Your task to perform on an android device: turn off location Image 0: 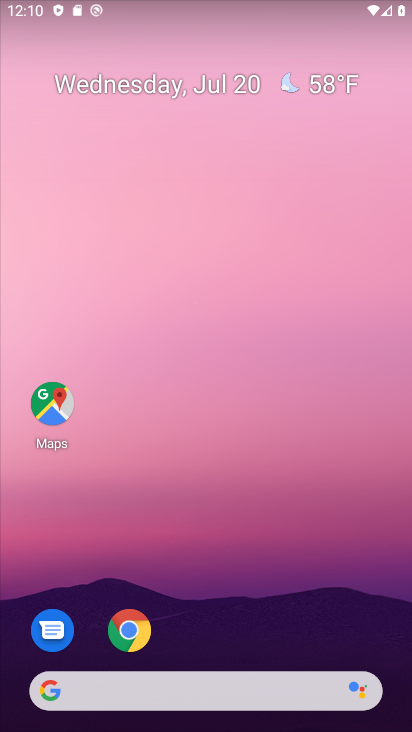
Step 0: press home button
Your task to perform on an android device: turn off location Image 1: 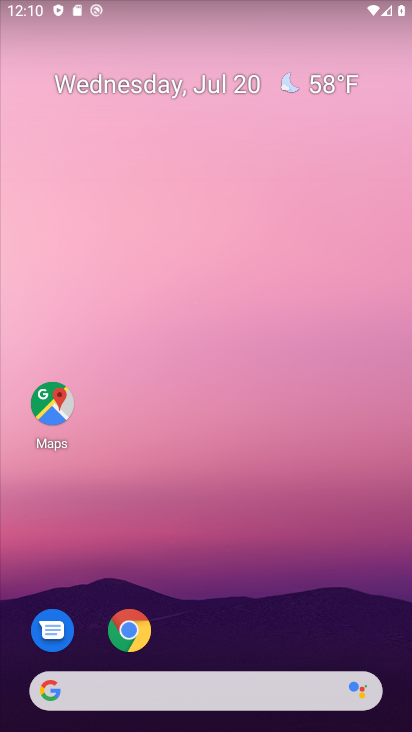
Step 1: drag from (170, 679) to (304, 143)
Your task to perform on an android device: turn off location Image 2: 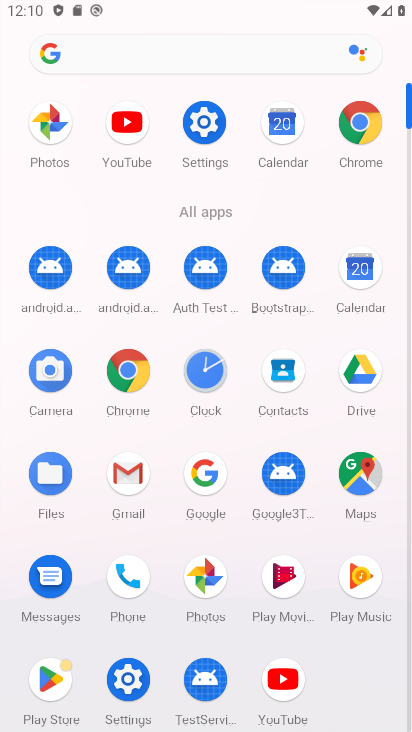
Step 2: click (207, 130)
Your task to perform on an android device: turn off location Image 3: 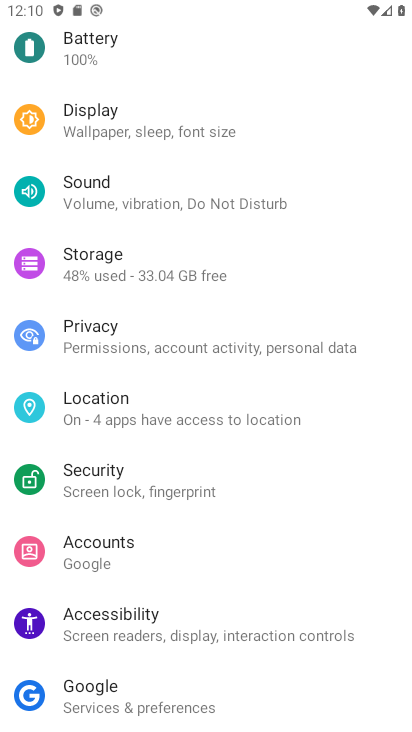
Step 3: click (123, 414)
Your task to perform on an android device: turn off location Image 4: 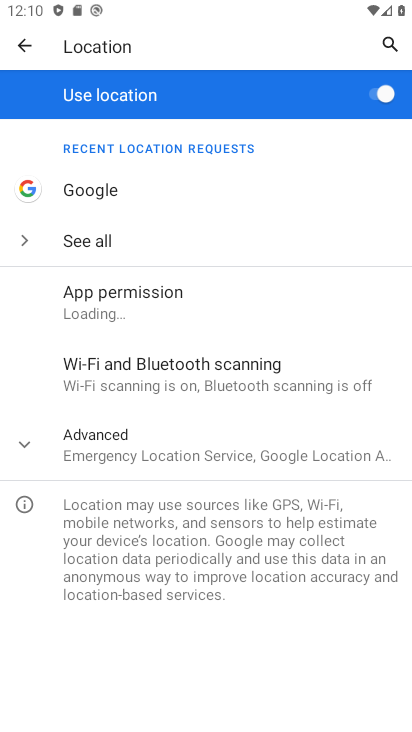
Step 4: click (375, 92)
Your task to perform on an android device: turn off location Image 5: 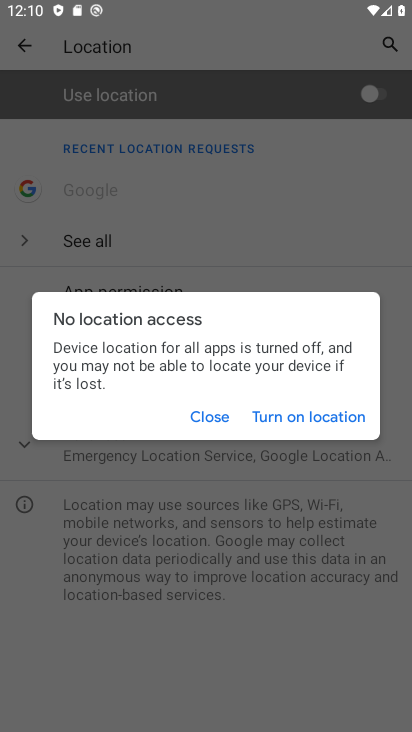
Step 5: click (211, 418)
Your task to perform on an android device: turn off location Image 6: 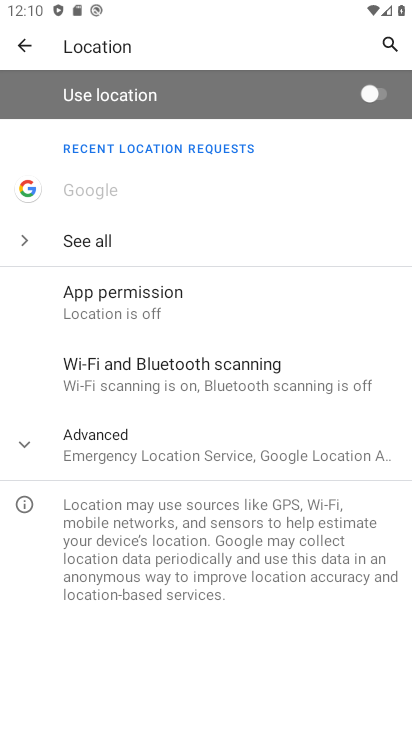
Step 6: task complete